Your task to perform on an android device: Open the web browser Image 0: 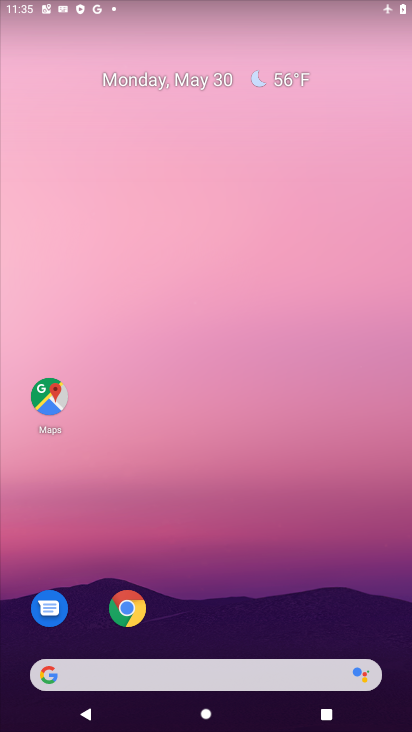
Step 0: drag from (227, 568) to (239, 9)
Your task to perform on an android device: Open the web browser Image 1: 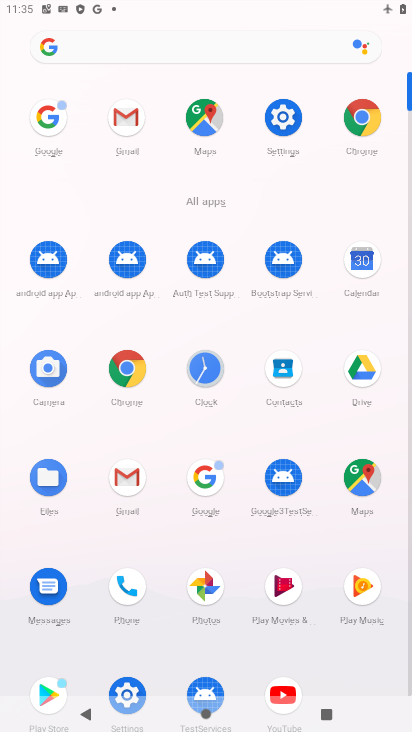
Step 1: click (205, 474)
Your task to perform on an android device: Open the web browser Image 2: 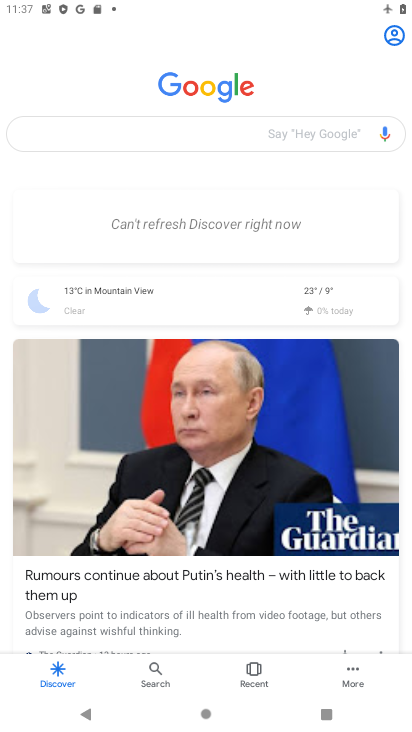
Step 2: task complete